Your task to perform on an android device: open app "Adobe Acrobat Reader" Image 0: 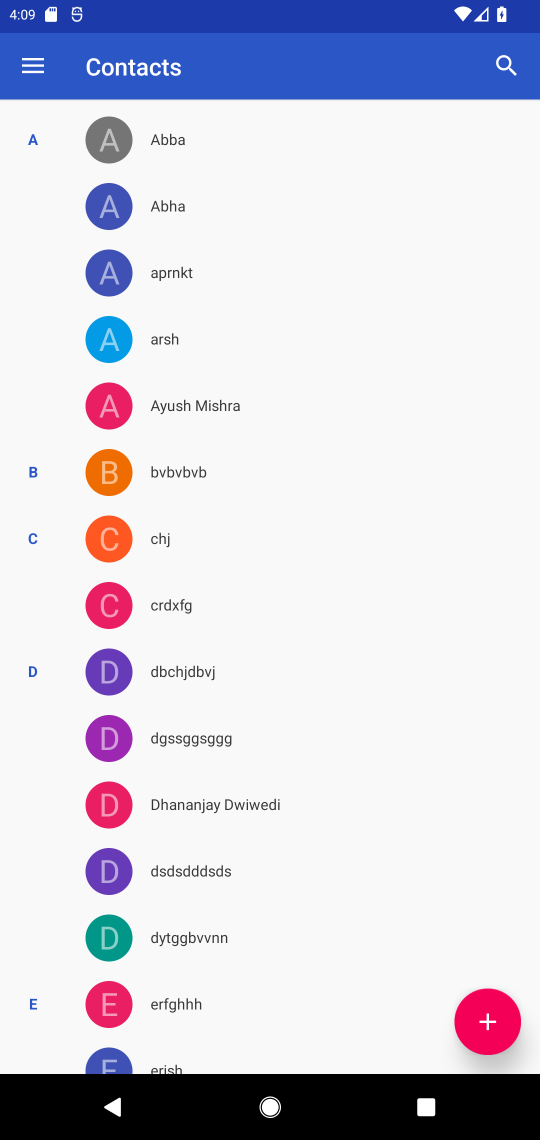
Step 0: press home button
Your task to perform on an android device: open app "Adobe Acrobat Reader" Image 1: 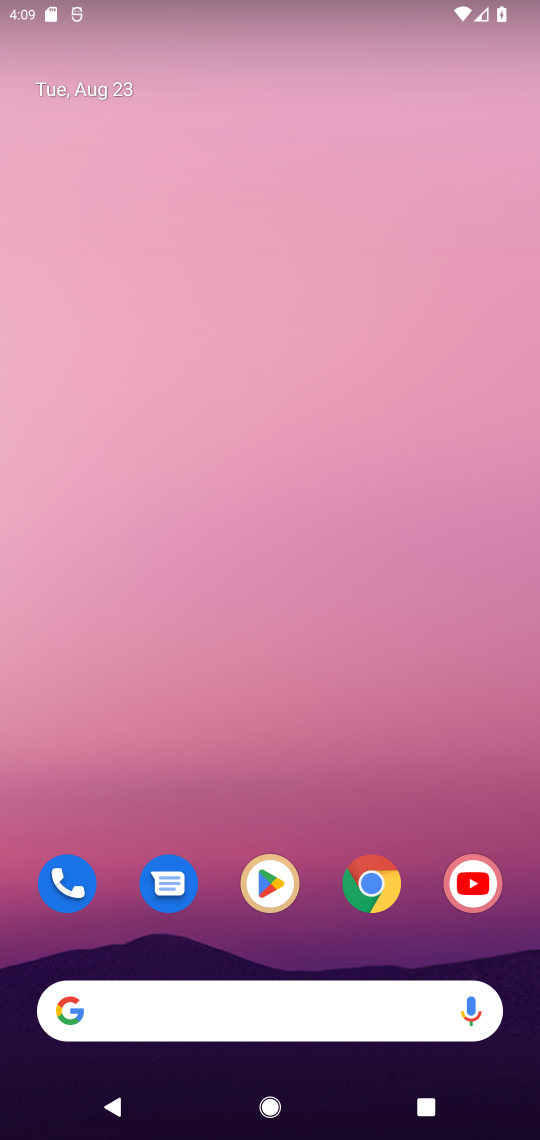
Step 1: drag from (247, 932) to (213, 299)
Your task to perform on an android device: open app "Adobe Acrobat Reader" Image 2: 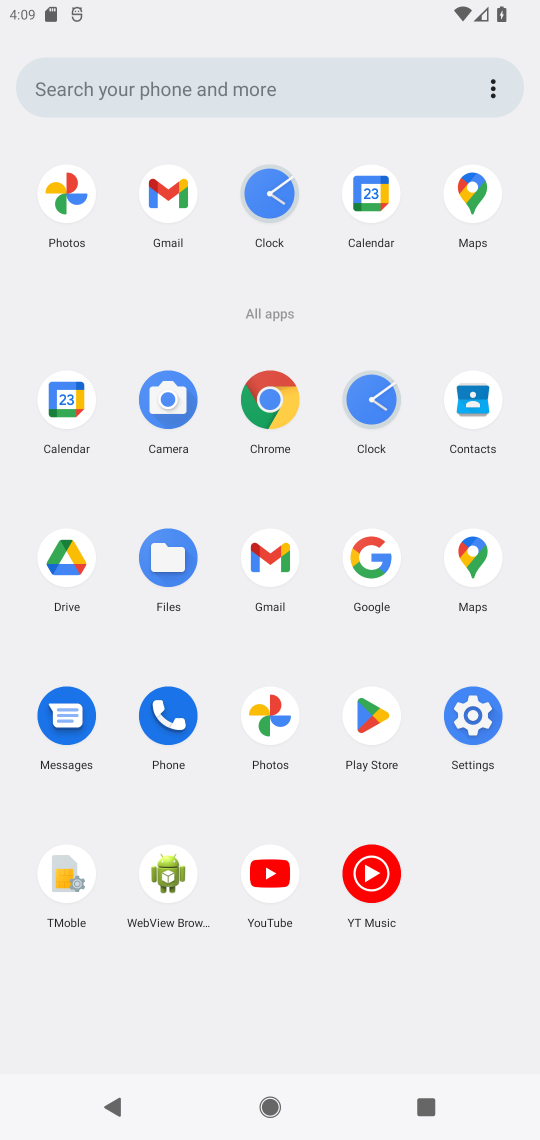
Step 2: click (381, 710)
Your task to perform on an android device: open app "Adobe Acrobat Reader" Image 3: 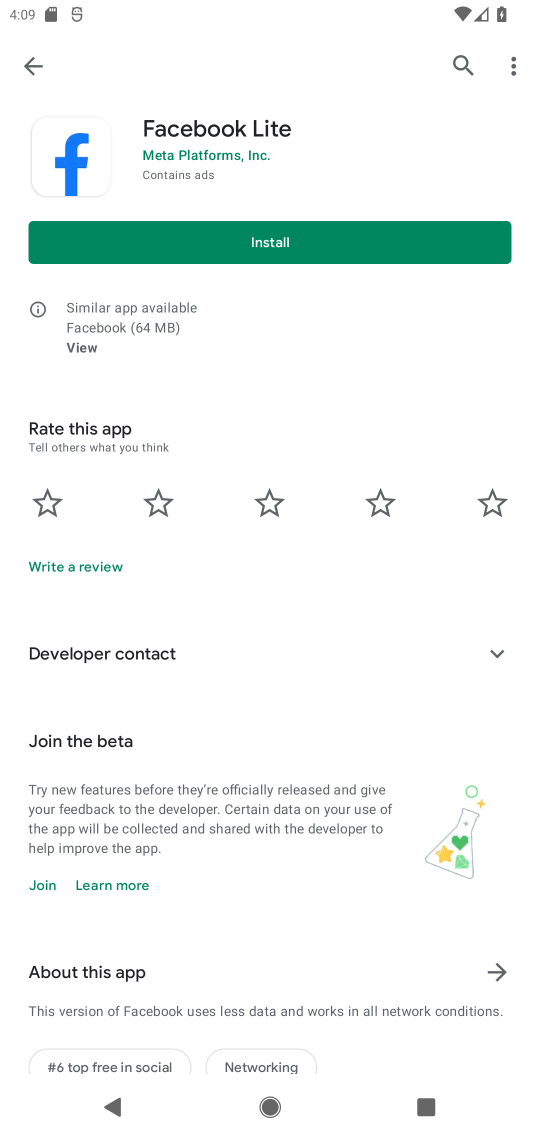
Step 3: click (461, 65)
Your task to perform on an android device: open app "Adobe Acrobat Reader" Image 4: 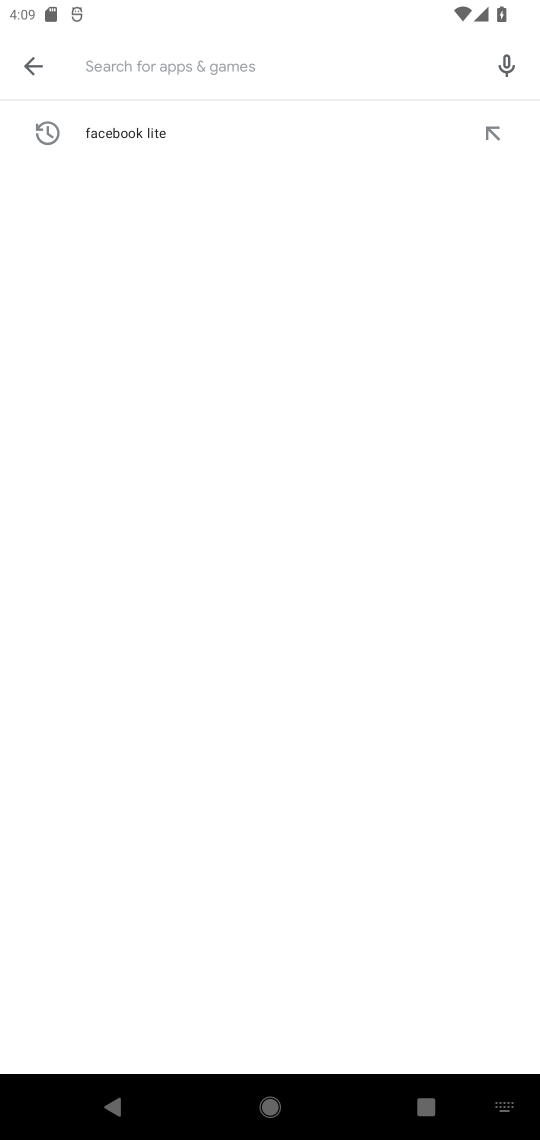
Step 4: type "Adobe Acrobat Reader"
Your task to perform on an android device: open app "Adobe Acrobat Reader" Image 5: 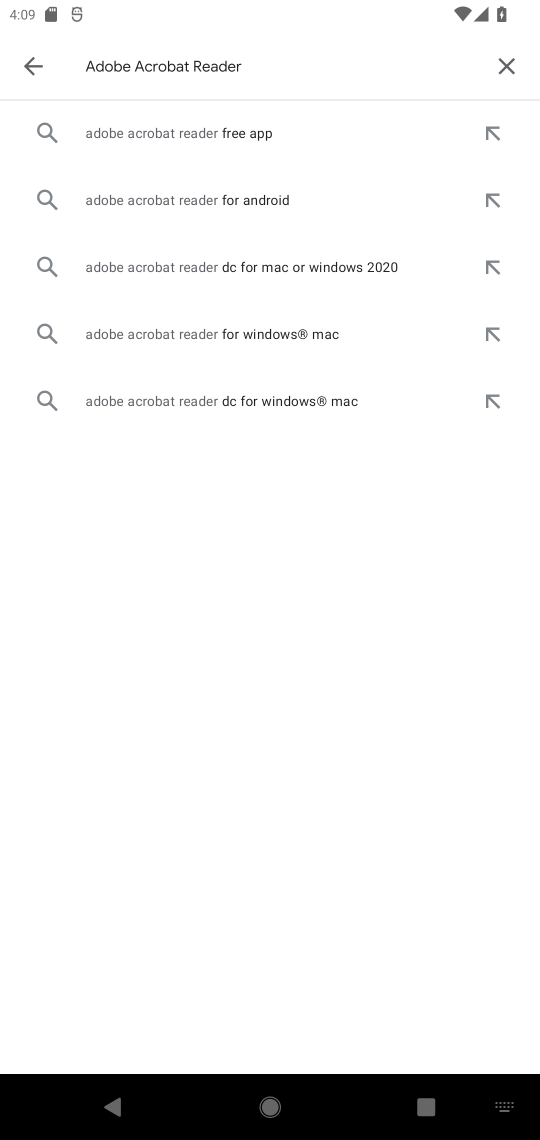
Step 5: click (139, 146)
Your task to perform on an android device: open app "Adobe Acrobat Reader" Image 6: 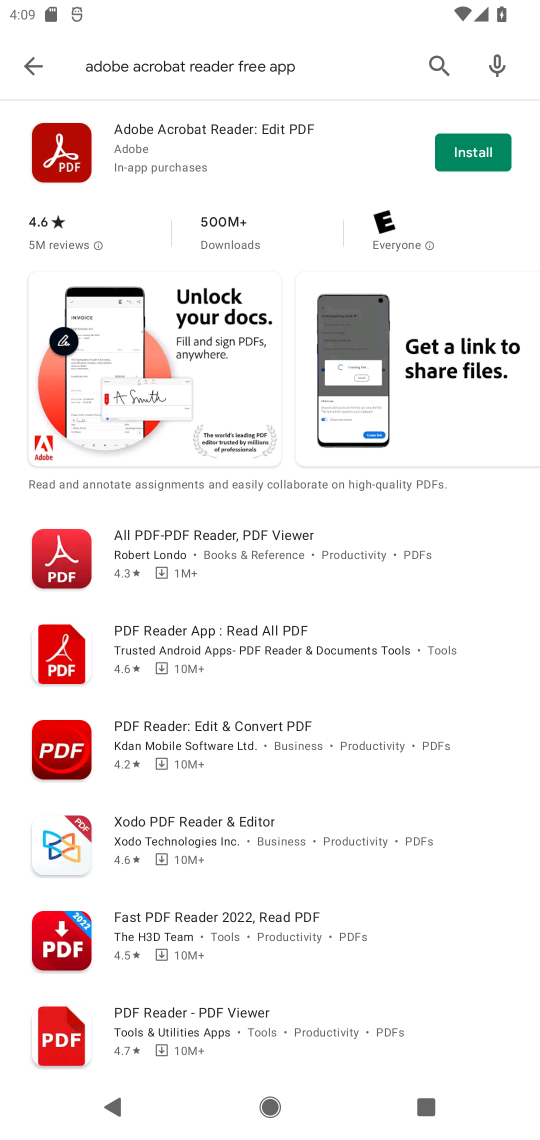
Step 6: click (452, 157)
Your task to perform on an android device: open app "Adobe Acrobat Reader" Image 7: 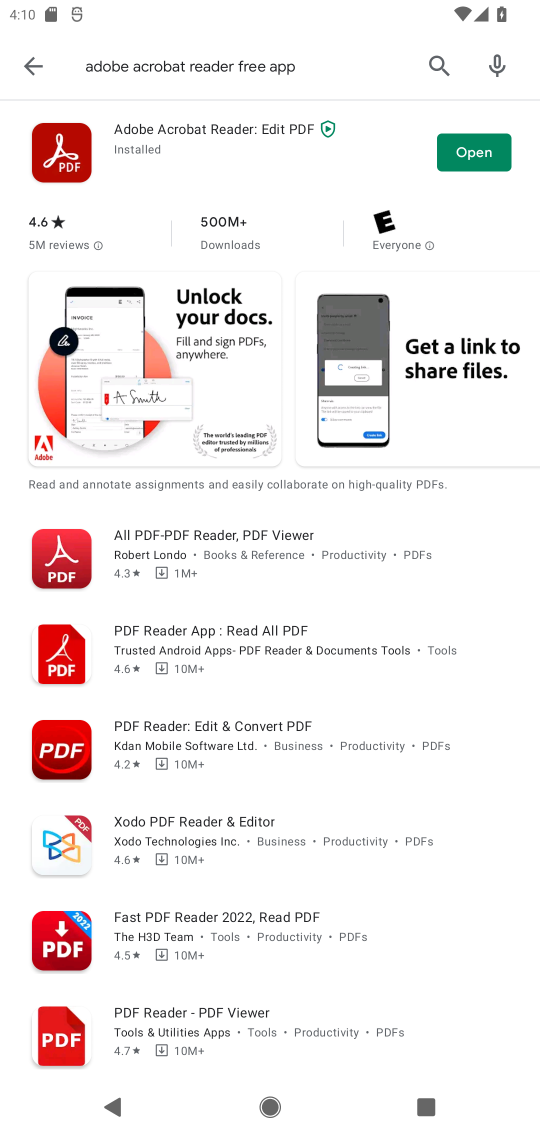
Step 7: click (454, 156)
Your task to perform on an android device: open app "Adobe Acrobat Reader" Image 8: 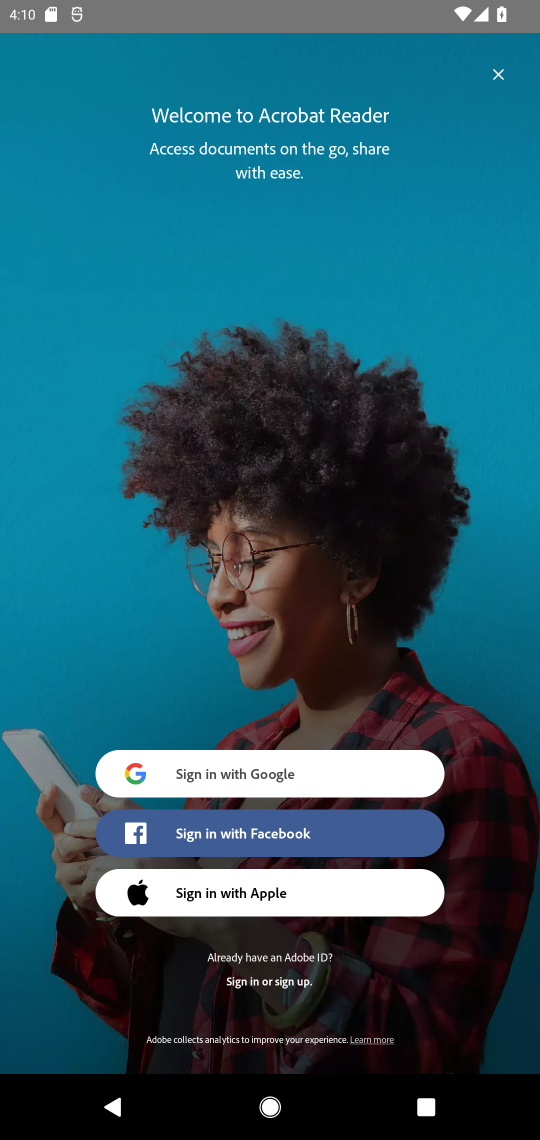
Step 8: task complete